Your task to perform on an android device: Go to sound settings Image 0: 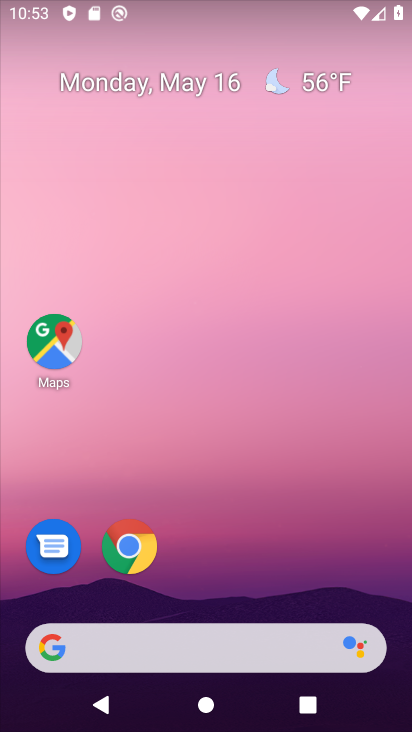
Step 0: drag from (340, 481) to (218, 5)
Your task to perform on an android device: Go to sound settings Image 1: 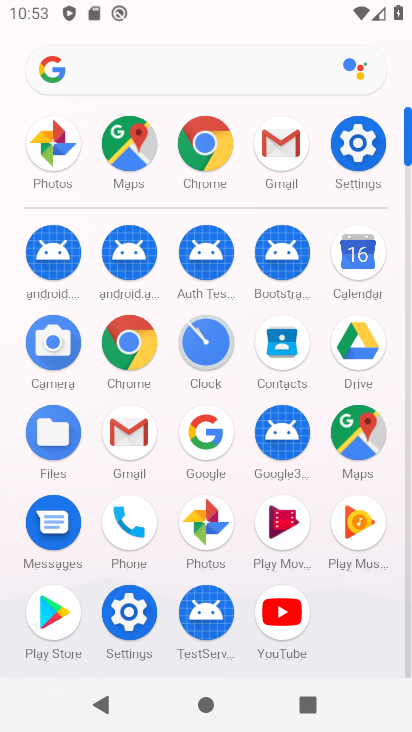
Step 1: click (367, 154)
Your task to perform on an android device: Go to sound settings Image 2: 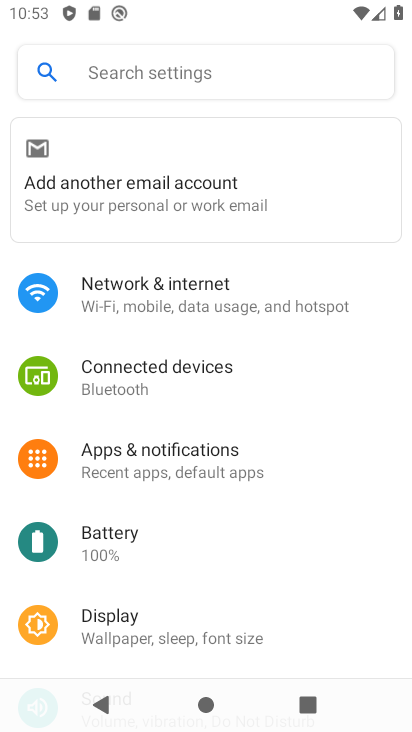
Step 2: drag from (187, 573) to (233, 197)
Your task to perform on an android device: Go to sound settings Image 3: 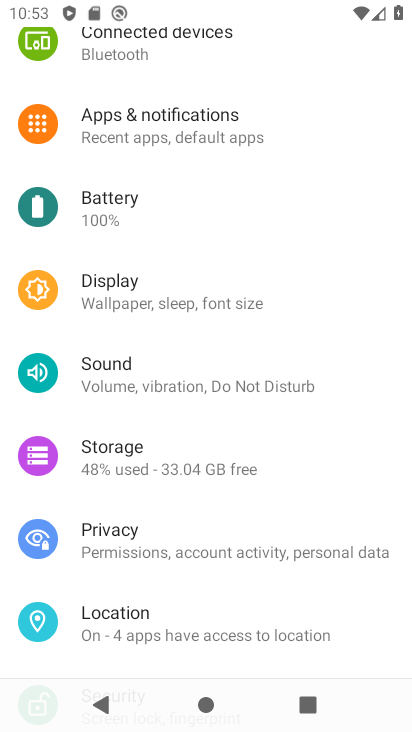
Step 3: click (173, 374)
Your task to perform on an android device: Go to sound settings Image 4: 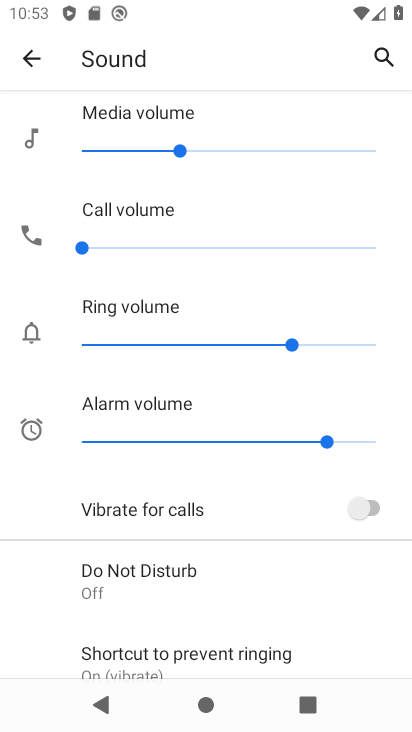
Step 4: task complete